Your task to perform on an android device: toggle javascript in the chrome app Image 0: 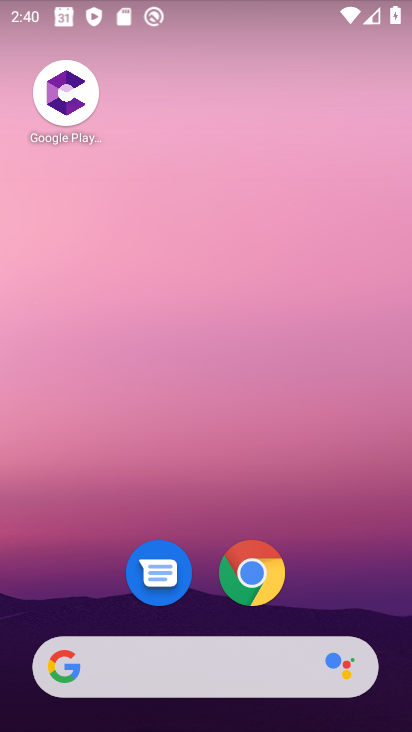
Step 0: click (270, 582)
Your task to perform on an android device: toggle javascript in the chrome app Image 1: 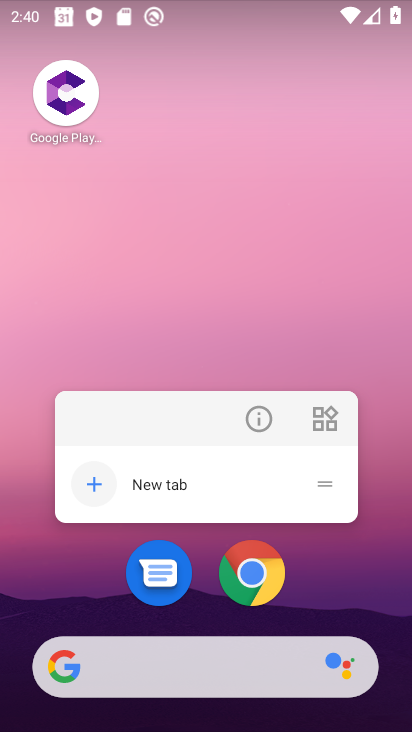
Step 1: drag from (214, 637) to (296, 221)
Your task to perform on an android device: toggle javascript in the chrome app Image 2: 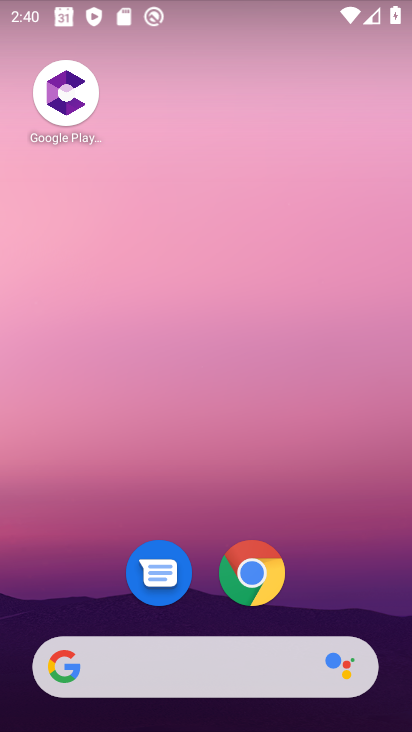
Step 2: click (238, 578)
Your task to perform on an android device: toggle javascript in the chrome app Image 3: 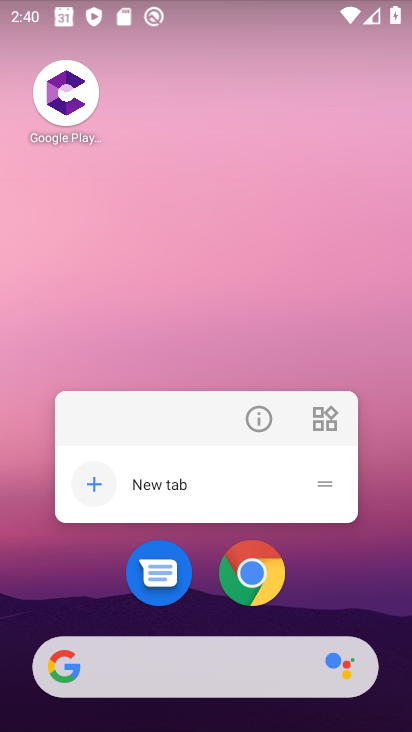
Step 3: click (251, 580)
Your task to perform on an android device: toggle javascript in the chrome app Image 4: 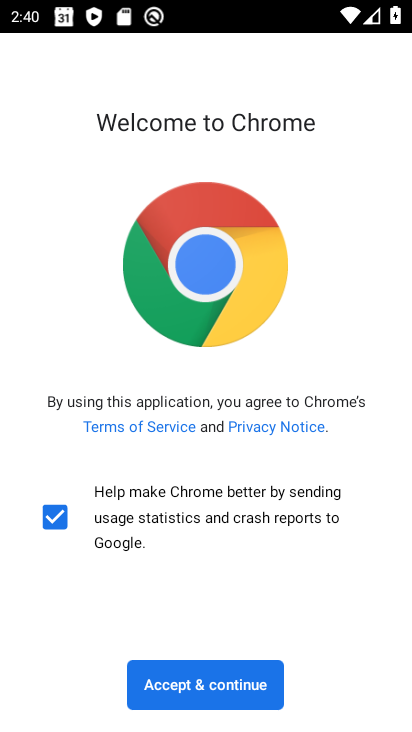
Step 4: click (179, 693)
Your task to perform on an android device: toggle javascript in the chrome app Image 5: 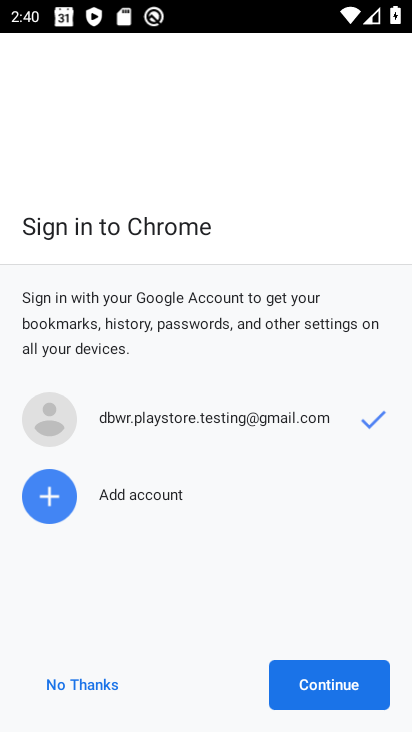
Step 5: click (322, 688)
Your task to perform on an android device: toggle javascript in the chrome app Image 6: 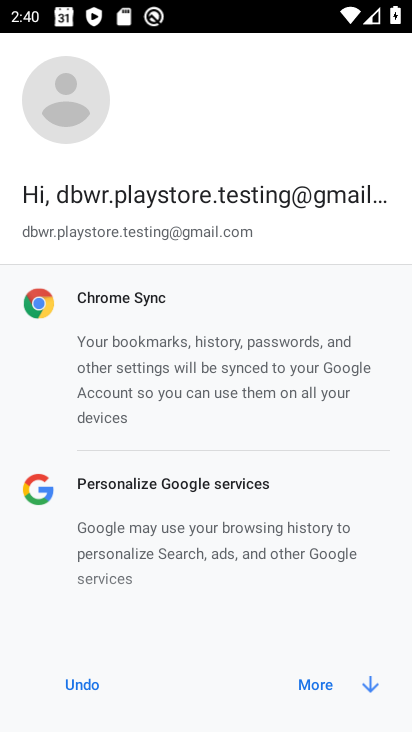
Step 6: click (322, 688)
Your task to perform on an android device: toggle javascript in the chrome app Image 7: 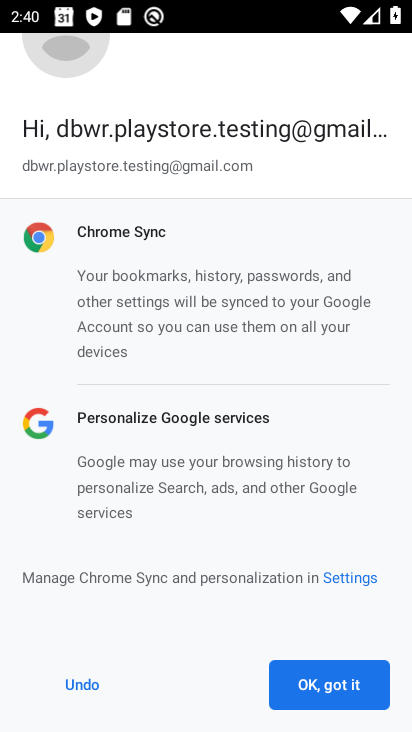
Step 7: click (322, 688)
Your task to perform on an android device: toggle javascript in the chrome app Image 8: 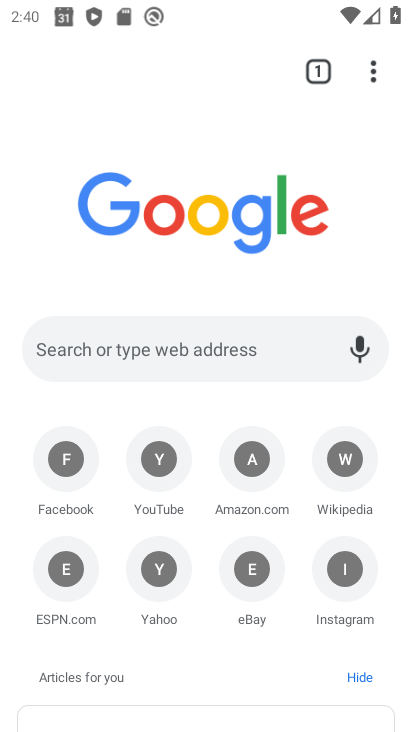
Step 8: click (389, 65)
Your task to perform on an android device: toggle javascript in the chrome app Image 9: 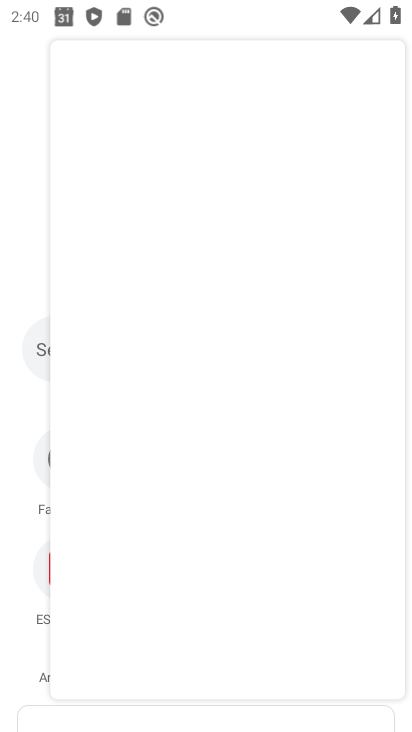
Step 9: click (378, 64)
Your task to perform on an android device: toggle javascript in the chrome app Image 10: 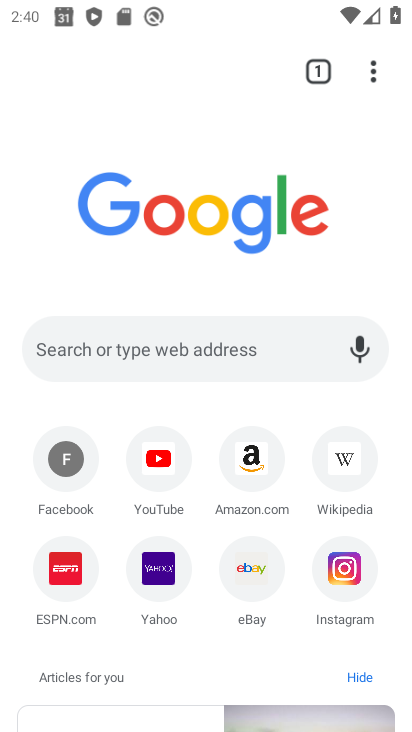
Step 10: click (373, 69)
Your task to perform on an android device: toggle javascript in the chrome app Image 11: 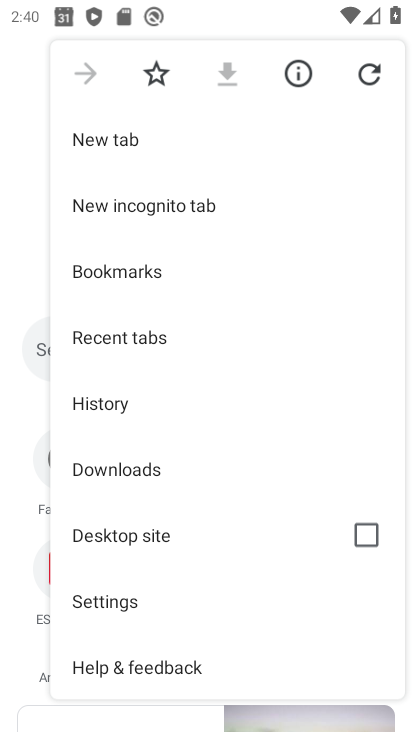
Step 11: drag from (163, 627) to (183, 266)
Your task to perform on an android device: toggle javascript in the chrome app Image 12: 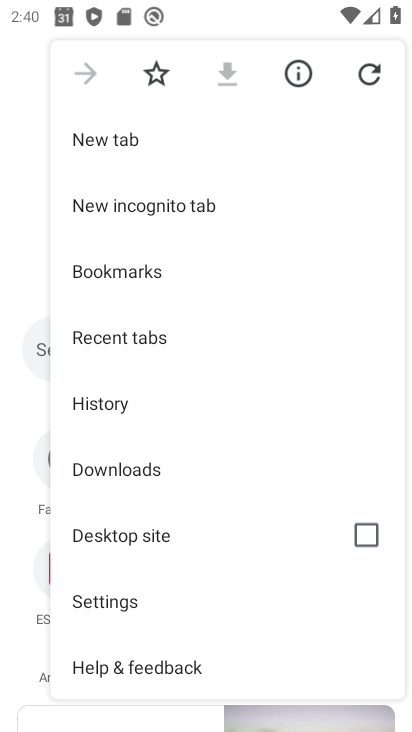
Step 12: click (123, 599)
Your task to perform on an android device: toggle javascript in the chrome app Image 13: 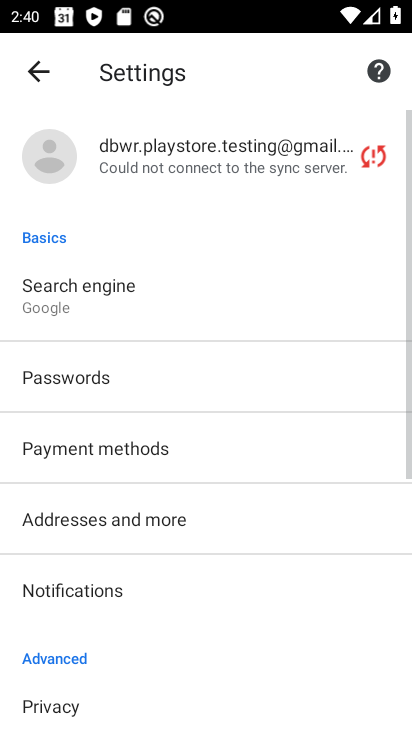
Step 13: drag from (165, 698) to (199, 326)
Your task to perform on an android device: toggle javascript in the chrome app Image 14: 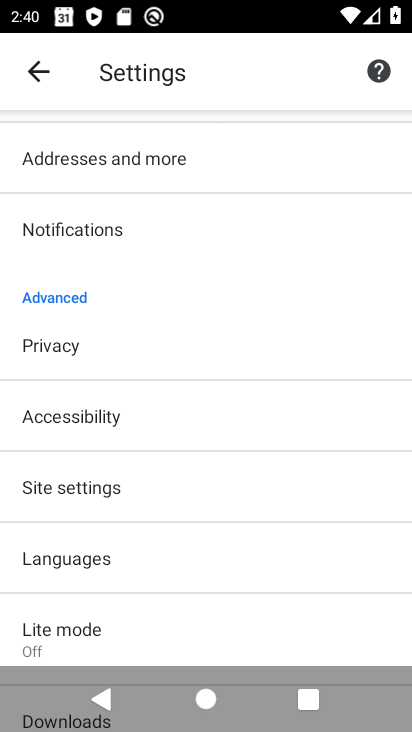
Step 14: drag from (125, 630) to (167, 287)
Your task to perform on an android device: toggle javascript in the chrome app Image 15: 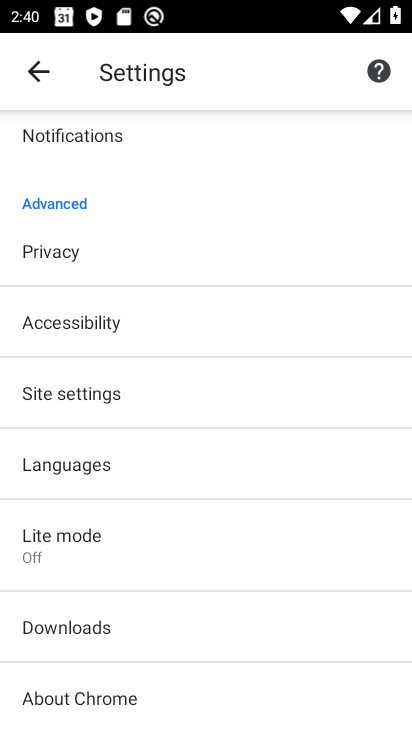
Step 15: click (86, 396)
Your task to perform on an android device: toggle javascript in the chrome app Image 16: 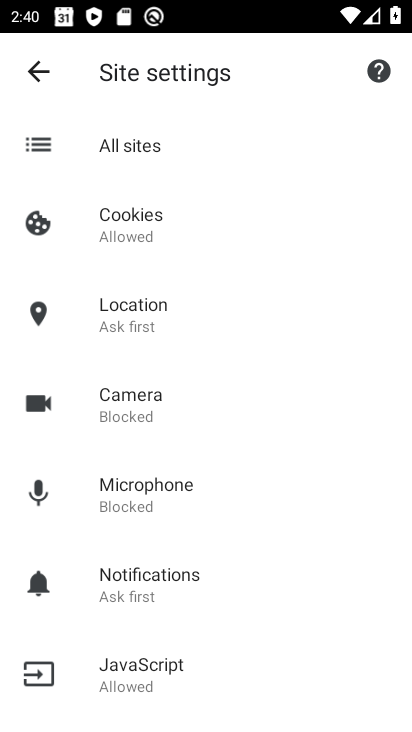
Step 16: click (157, 669)
Your task to perform on an android device: toggle javascript in the chrome app Image 17: 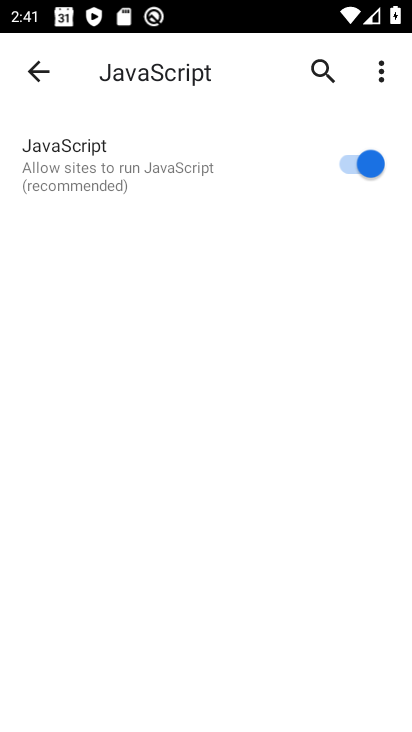
Step 17: click (351, 162)
Your task to perform on an android device: toggle javascript in the chrome app Image 18: 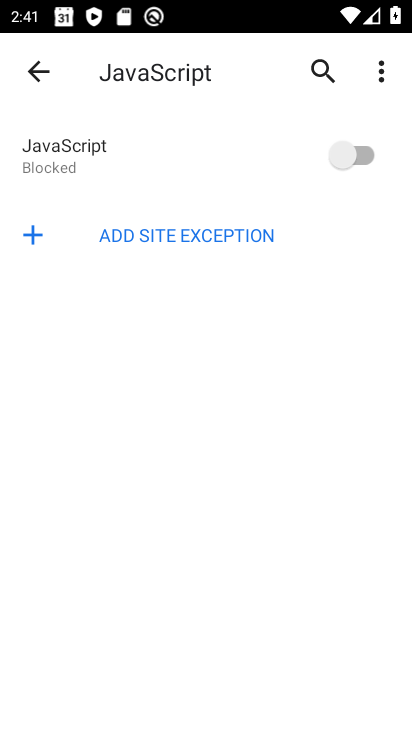
Step 18: task complete